Your task to perform on an android device: turn off javascript in the chrome app Image 0: 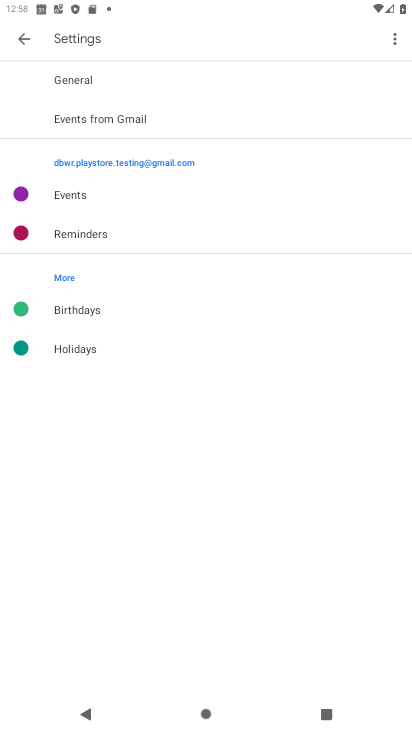
Step 0: press home button
Your task to perform on an android device: turn off javascript in the chrome app Image 1: 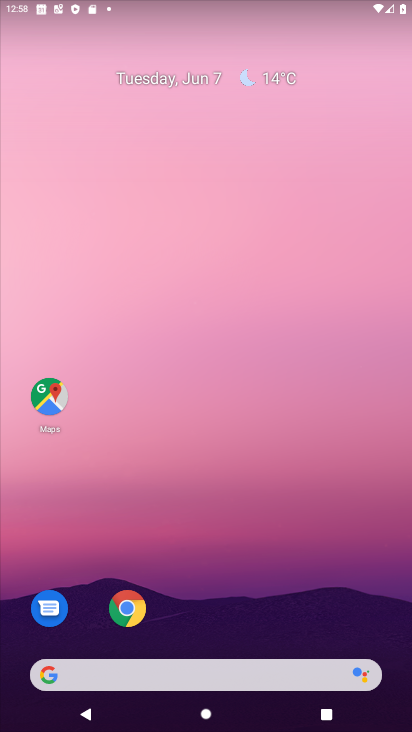
Step 1: drag from (300, 616) to (299, 133)
Your task to perform on an android device: turn off javascript in the chrome app Image 2: 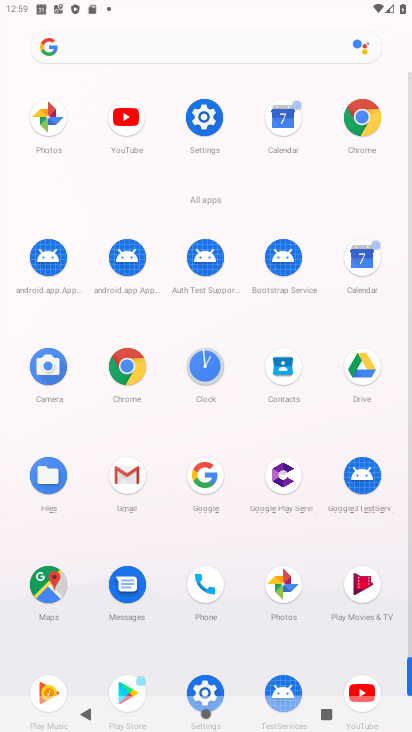
Step 2: click (366, 120)
Your task to perform on an android device: turn off javascript in the chrome app Image 3: 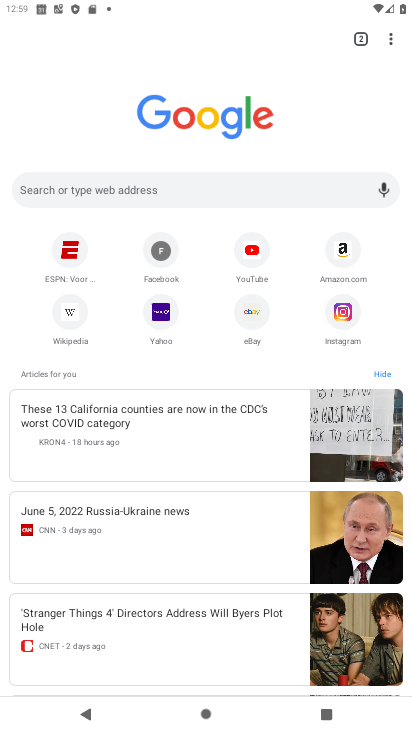
Step 3: drag from (393, 32) to (259, 327)
Your task to perform on an android device: turn off javascript in the chrome app Image 4: 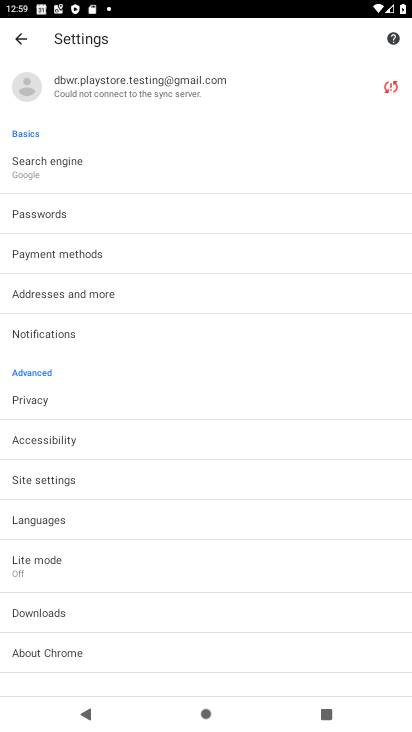
Step 4: click (68, 482)
Your task to perform on an android device: turn off javascript in the chrome app Image 5: 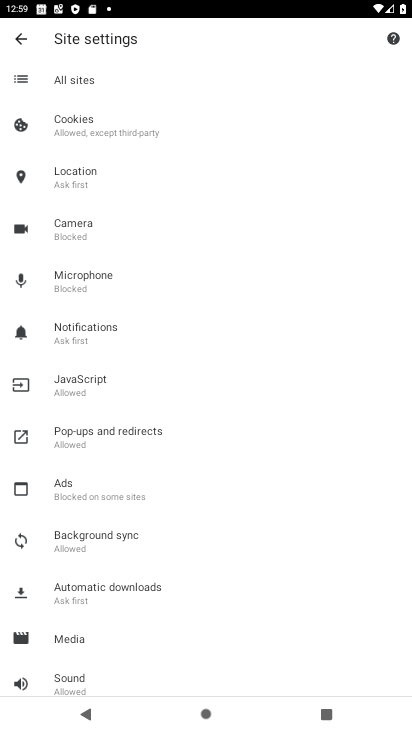
Step 5: click (82, 389)
Your task to perform on an android device: turn off javascript in the chrome app Image 6: 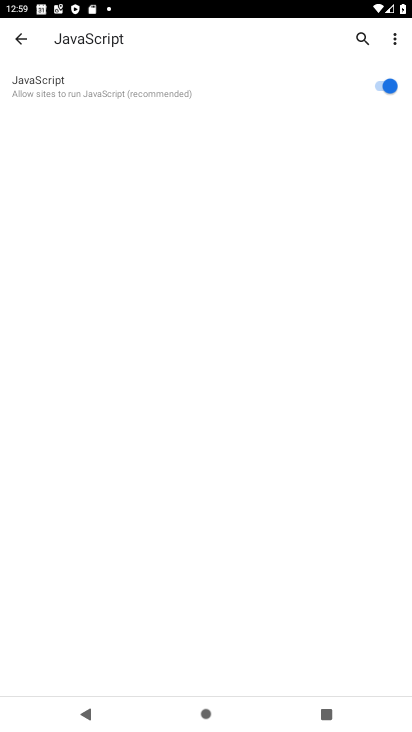
Step 6: click (383, 84)
Your task to perform on an android device: turn off javascript in the chrome app Image 7: 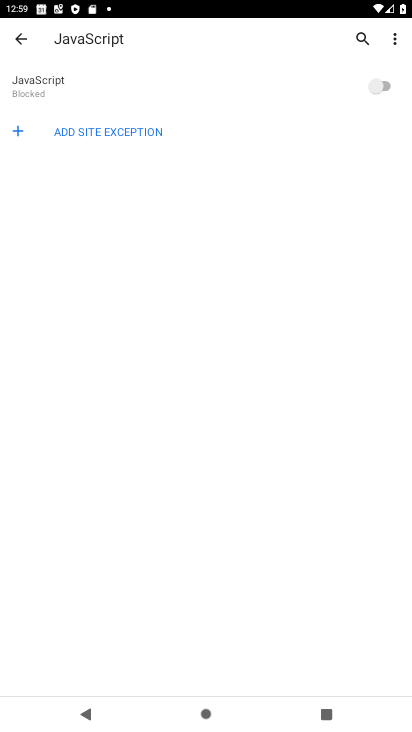
Step 7: task complete